Your task to perform on an android device: Show me productivity apps on the Play Store Image 0: 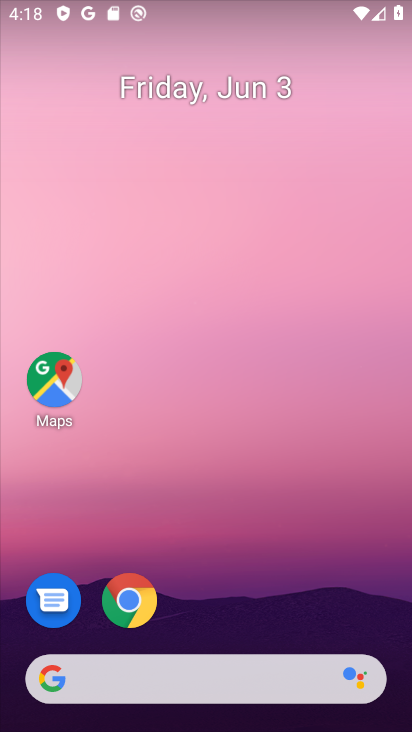
Step 0: drag from (393, 702) to (360, 96)
Your task to perform on an android device: Show me productivity apps on the Play Store Image 1: 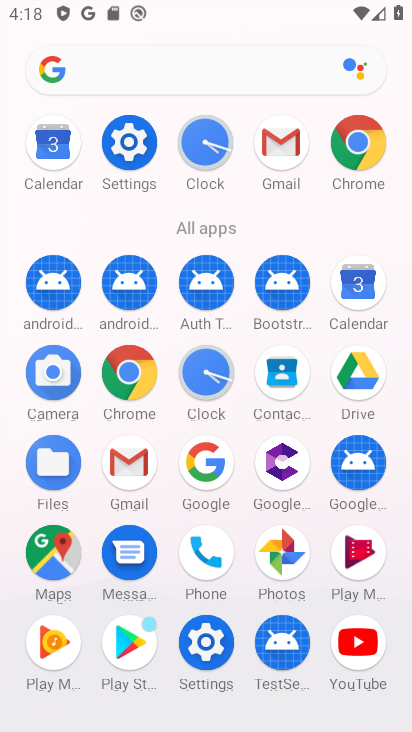
Step 1: click (131, 639)
Your task to perform on an android device: Show me productivity apps on the Play Store Image 2: 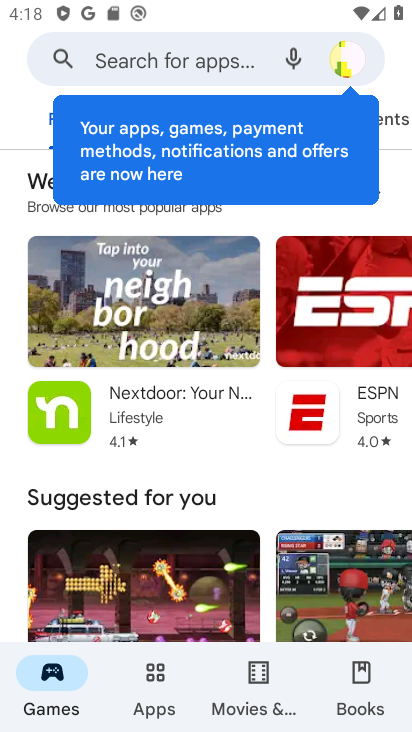
Step 2: click (237, 57)
Your task to perform on an android device: Show me productivity apps on the Play Store Image 3: 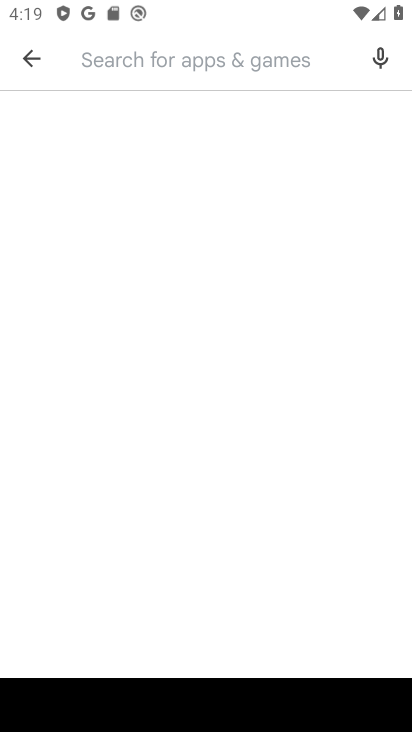
Step 3: type " productivity apps"
Your task to perform on an android device: Show me productivity apps on the Play Store Image 4: 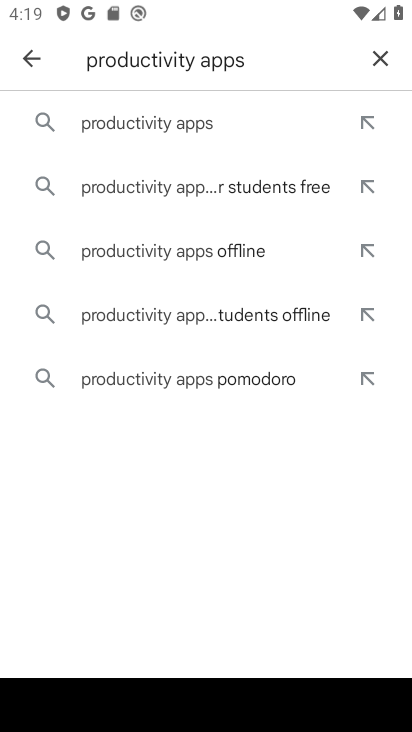
Step 4: click (145, 123)
Your task to perform on an android device: Show me productivity apps on the Play Store Image 5: 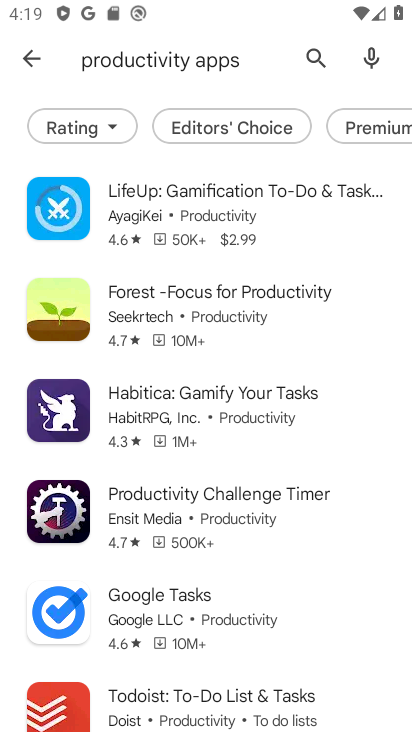
Step 5: task complete